Your task to perform on an android device: Open calendar and show me the fourth week of next month Image 0: 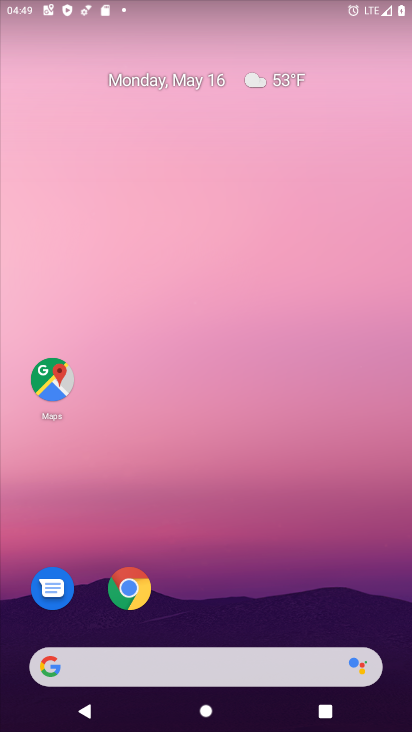
Step 0: drag from (232, 541) to (243, 34)
Your task to perform on an android device: Open calendar and show me the fourth week of next month Image 1: 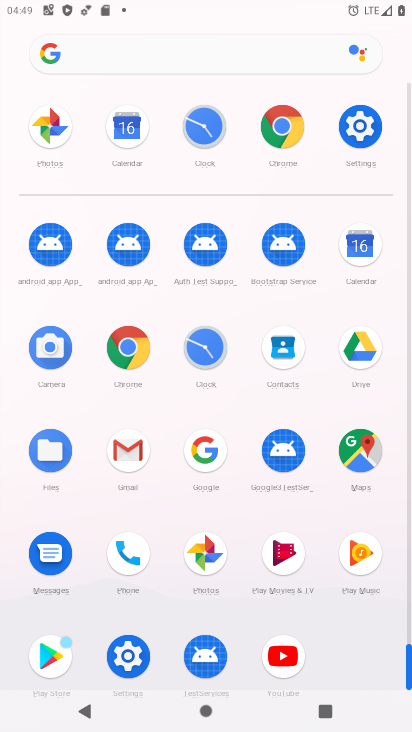
Step 1: click (360, 446)
Your task to perform on an android device: Open calendar and show me the fourth week of next month Image 2: 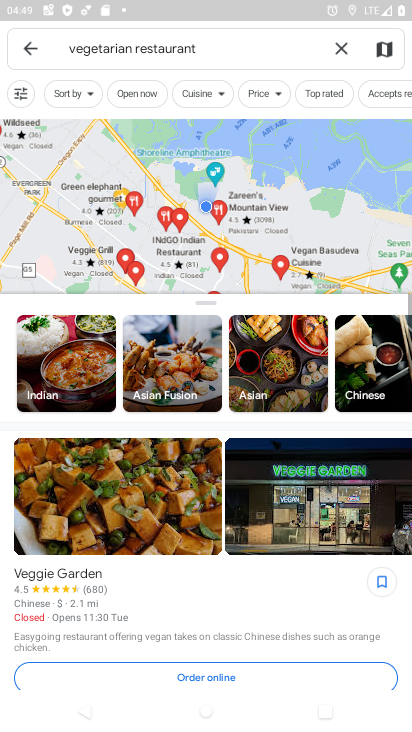
Step 2: press back button
Your task to perform on an android device: Open calendar and show me the fourth week of next month Image 3: 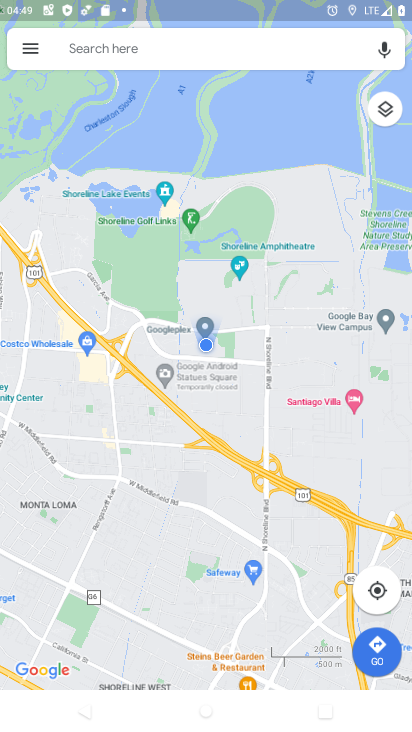
Step 3: press back button
Your task to perform on an android device: Open calendar and show me the fourth week of next month Image 4: 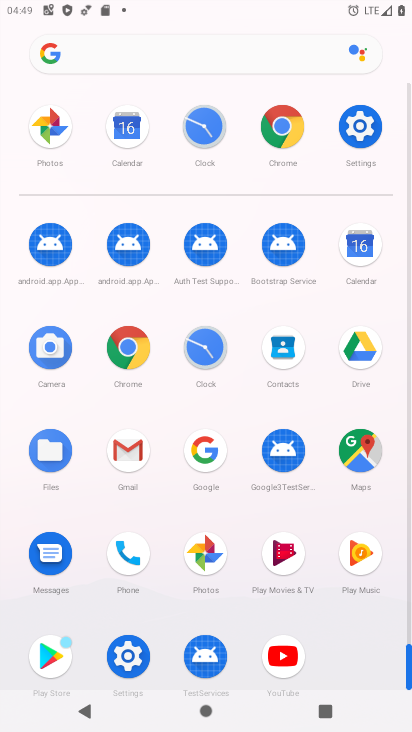
Step 4: click (356, 235)
Your task to perform on an android device: Open calendar and show me the fourth week of next month Image 5: 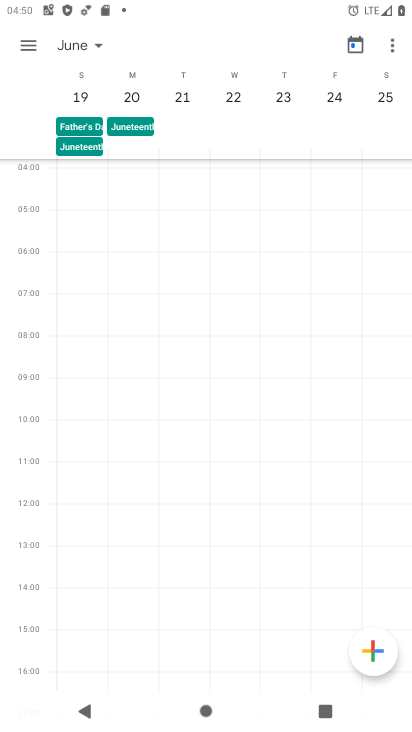
Step 5: click (350, 47)
Your task to perform on an android device: Open calendar and show me the fourth week of next month Image 6: 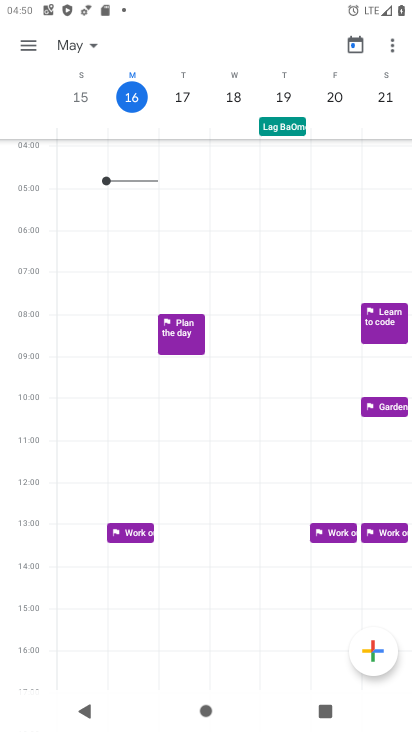
Step 6: click (81, 45)
Your task to perform on an android device: Open calendar and show me the fourth week of next month Image 7: 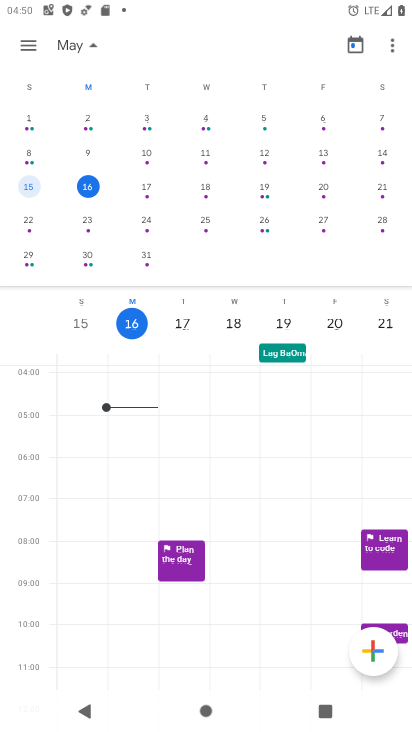
Step 7: drag from (362, 157) to (6, 191)
Your task to perform on an android device: Open calendar and show me the fourth week of next month Image 8: 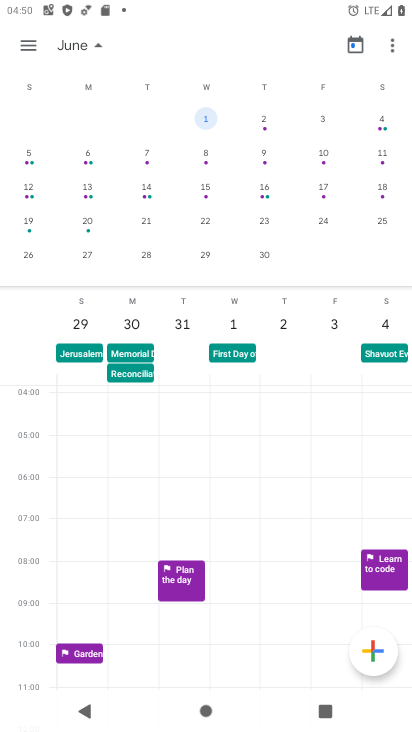
Step 8: click (25, 221)
Your task to perform on an android device: Open calendar and show me the fourth week of next month Image 9: 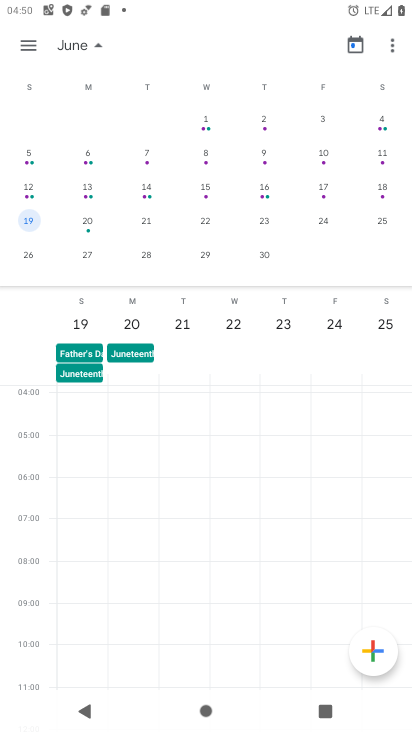
Step 9: click (24, 46)
Your task to perform on an android device: Open calendar and show me the fourth week of next month Image 10: 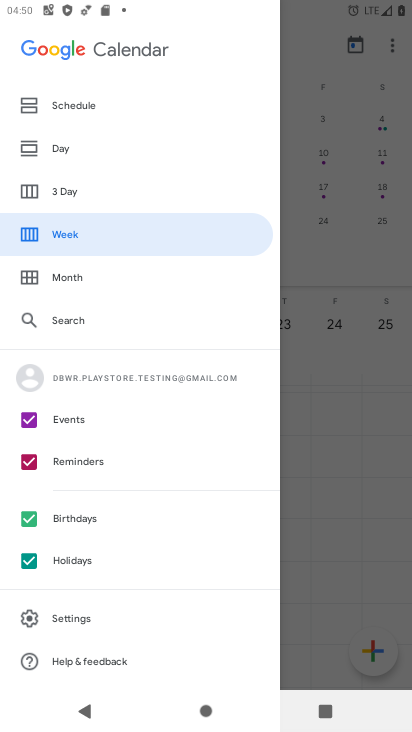
Step 10: click (87, 228)
Your task to perform on an android device: Open calendar and show me the fourth week of next month Image 11: 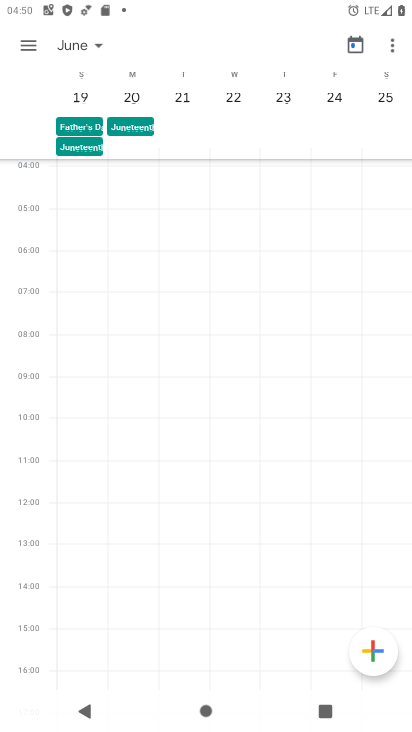
Step 11: task complete